Your task to perform on an android device: toggle pop-ups in chrome Image 0: 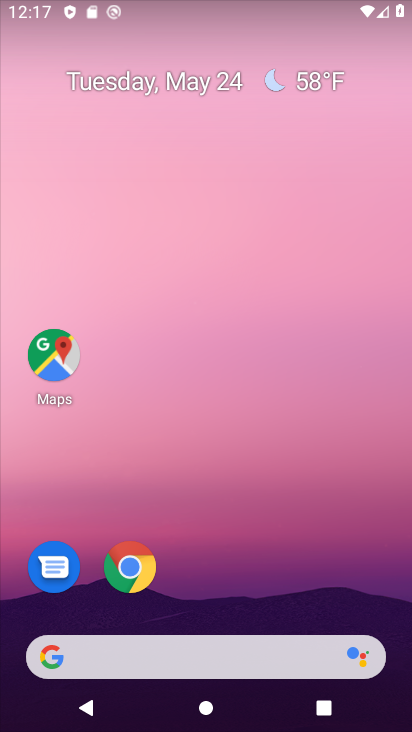
Step 0: click (147, 556)
Your task to perform on an android device: toggle pop-ups in chrome Image 1: 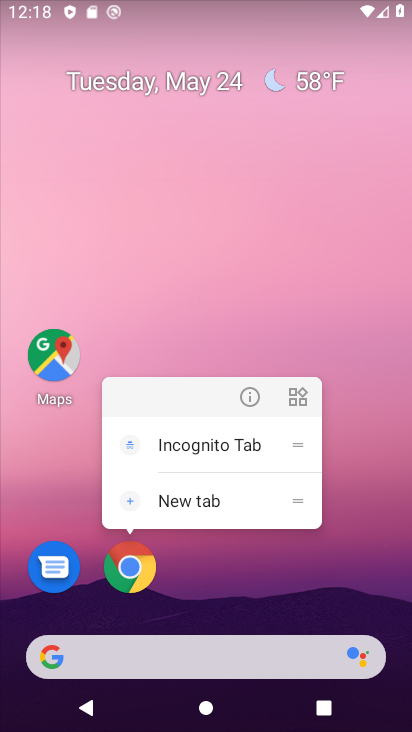
Step 1: click (124, 569)
Your task to perform on an android device: toggle pop-ups in chrome Image 2: 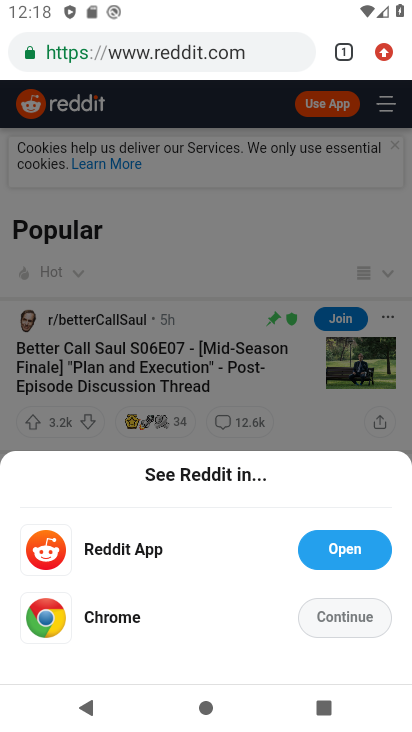
Step 2: drag from (386, 45) to (225, 604)
Your task to perform on an android device: toggle pop-ups in chrome Image 3: 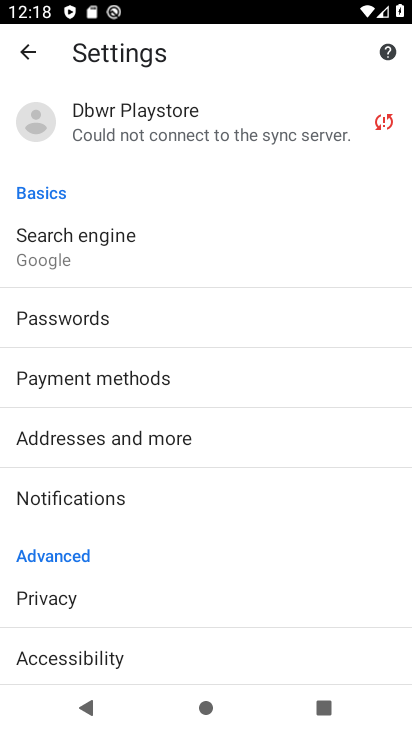
Step 3: drag from (112, 637) to (134, 292)
Your task to perform on an android device: toggle pop-ups in chrome Image 4: 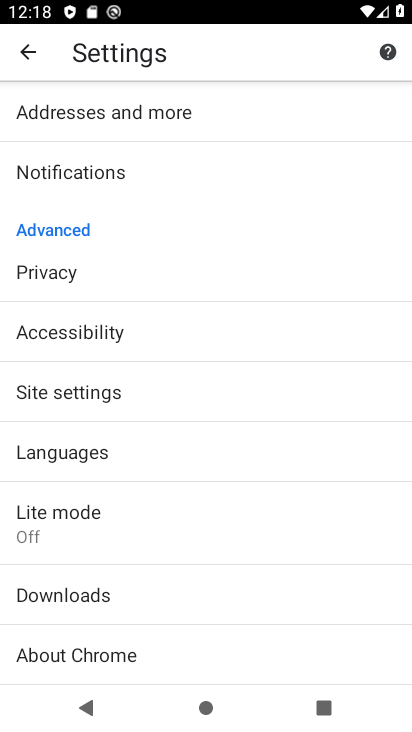
Step 4: click (75, 398)
Your task to perform on an android device: toggle pop-ups in chrome Image 5: 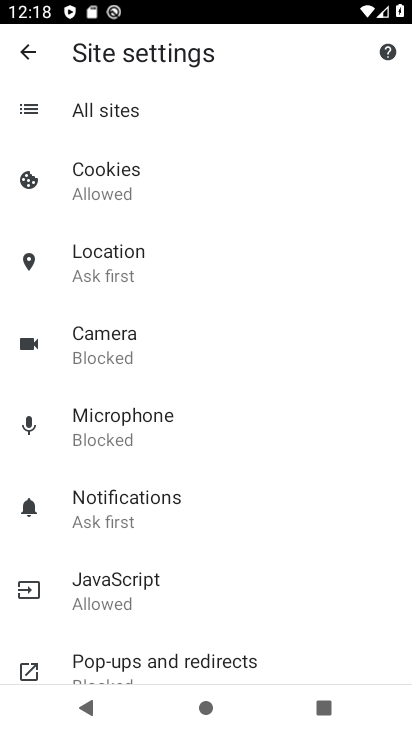
Step 5: click (146, 663)
Your task to perform on an android device: toggle pop-ups in chrome Image 6: 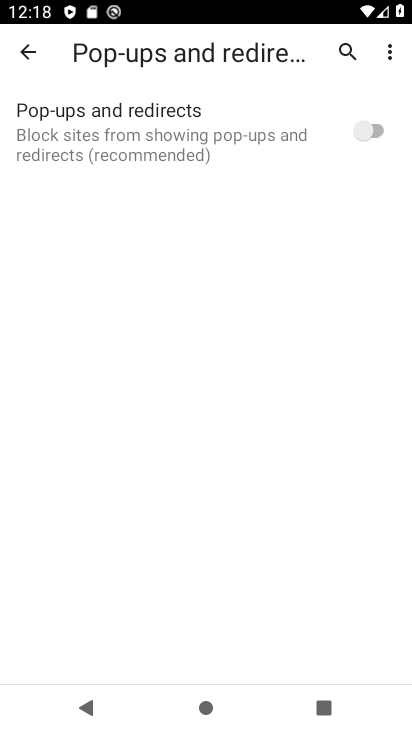
Step 6: click (370, 133)
Your task to perform on an android device: toggle pop-ups in chrome Image 7: 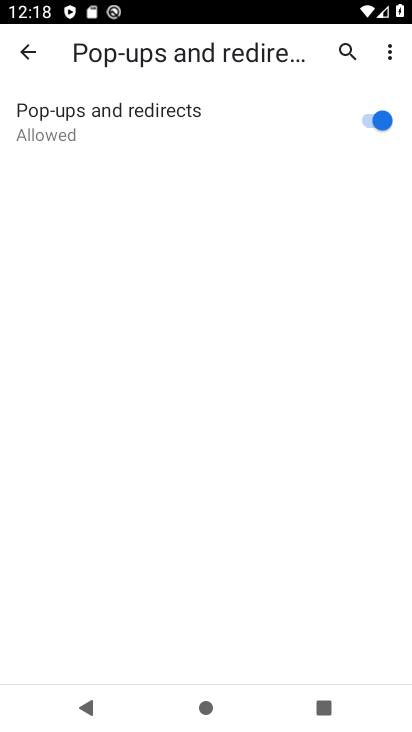
Step 7: task complete